Your task to perform on an android device: delete the emails in spam in the gmail app Image 0: 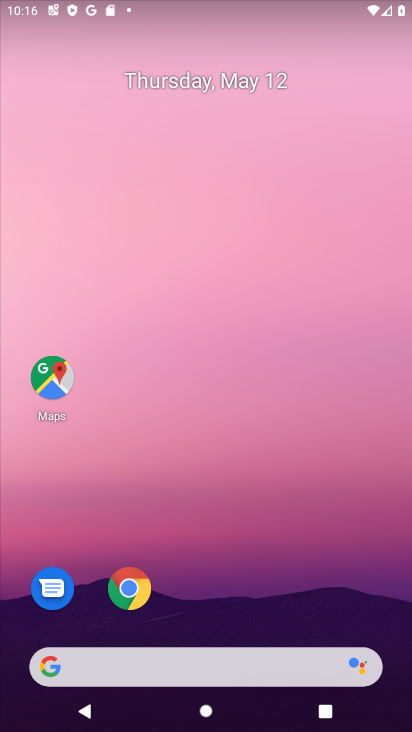
Step 0: drag from (221, 531) to (230, 272)
Your task to perform on an android device: delete the emails in spam in the gmail app Image 1: 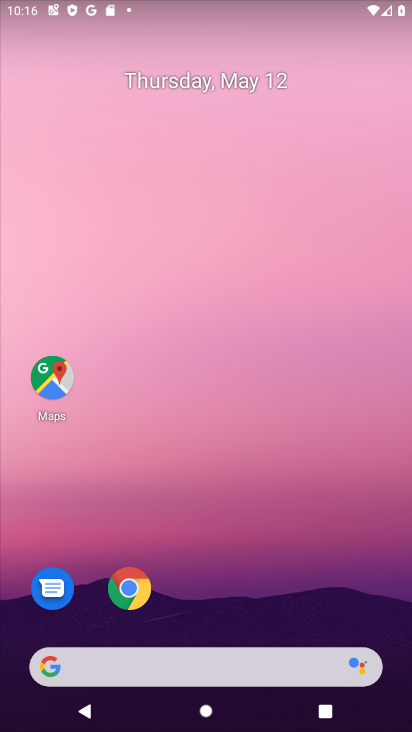
Step 1: drag from (206, 566) to (187, 298)
Your task to perform on an android device: delete the emails in spam in the gmail app Image 2: 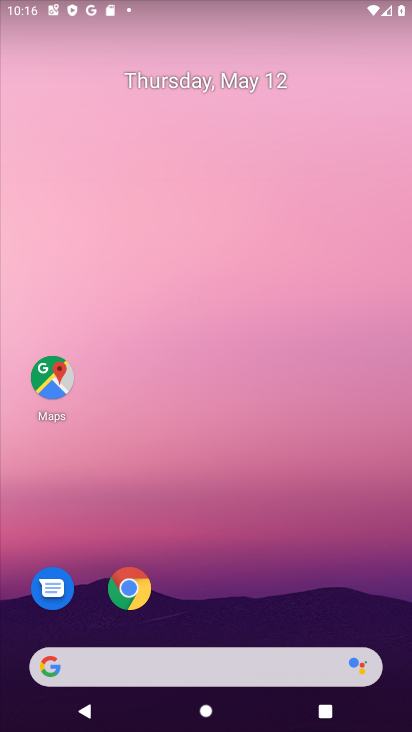
Step 2: drag from (195, 646) to (195, 299)
Your task to perform on an android device: delete the emails in spam in the gmail app Image 3: 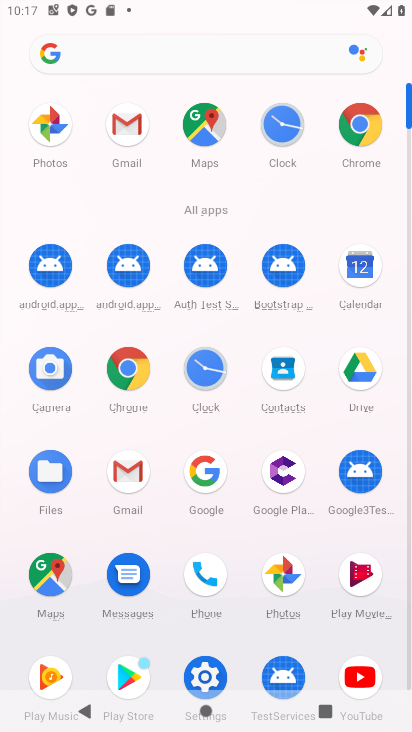
Step 3: click (140, 467)
Your task to perform on an android device: delete the emails in spam in the gmail app Image 4: 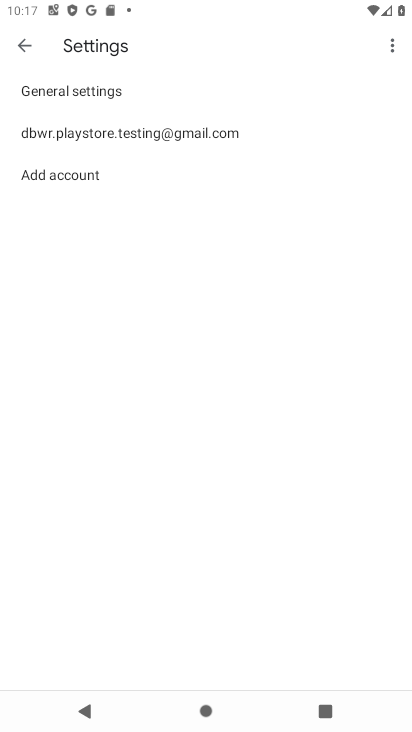
Step 4: click (115, 138)
Your task to perform on an android device: delete the emails in spam in the gmail app Image 5: 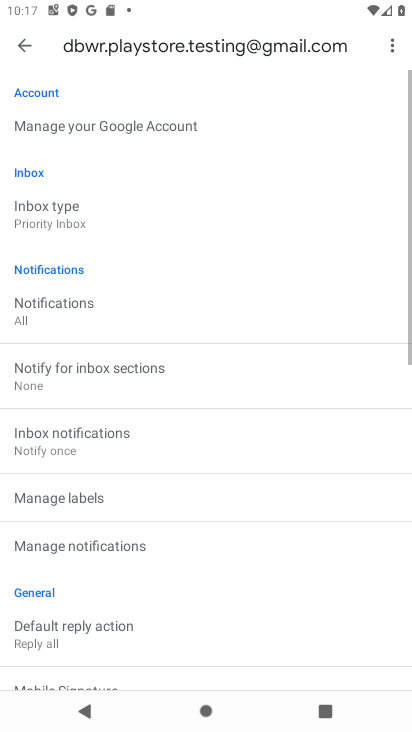
Step 5: click (27, 60)
Your task to perform on an android device: delete the emails in spam in the gmail app Image 6: 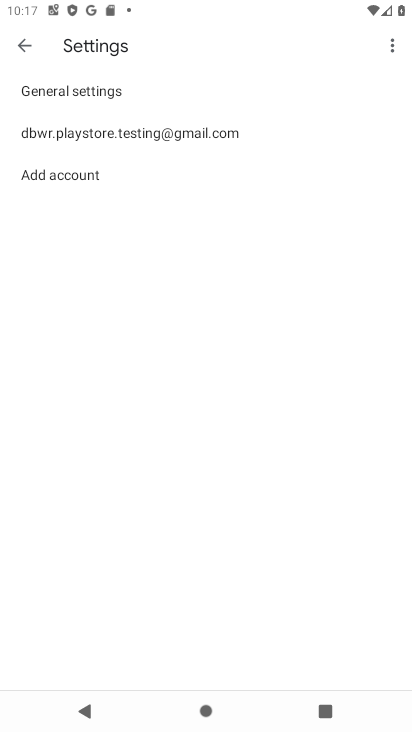
Step 6: click (23, 45)
Your task to perform on an android device: delete the emails in spam in the gmail app Image 7: 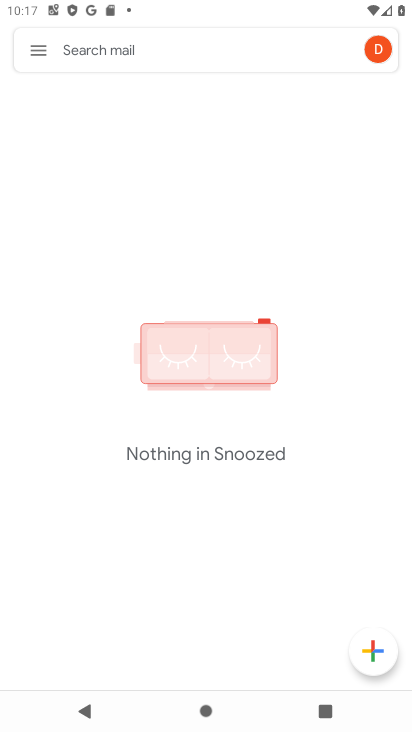
Step 7: click (39, 45)
Your task to perform on an android device: delete the emails in spam in the gmail app Image 8: 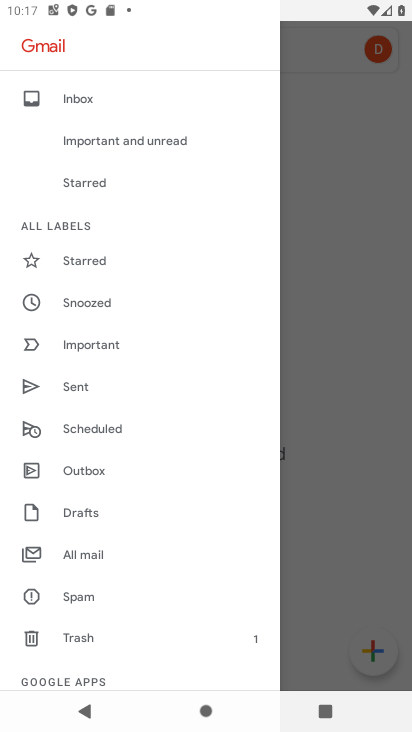
Step 8: click (84, 595)
Your task to perform on an android device: delete the emails in spam in the gmail app Image 9: 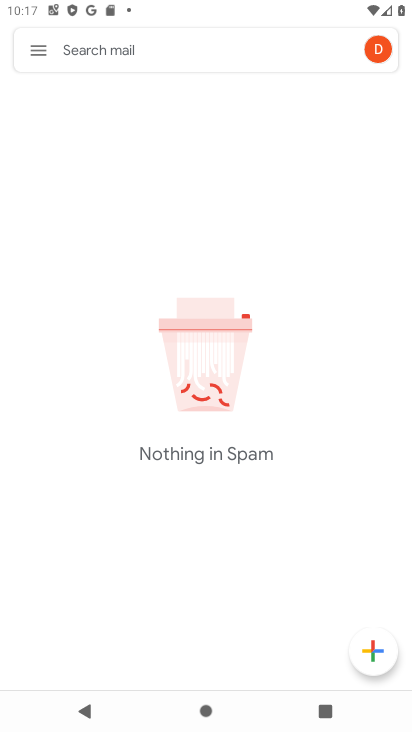
Step 9: task complete